Your task to perform on an android device: check out phone information Image 0: 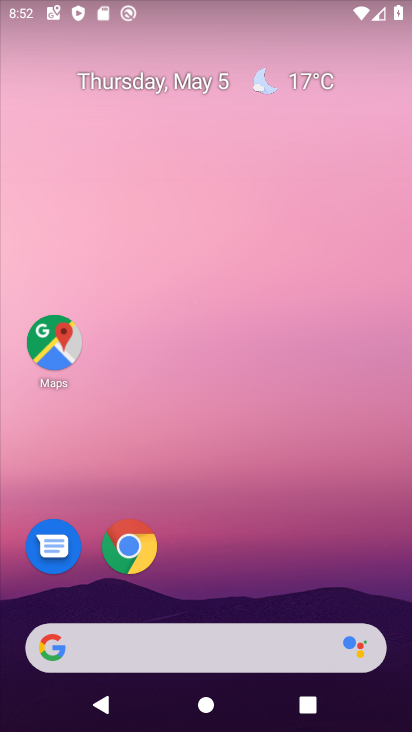
Step 0: drag from (165, 645) to (295, 63)
Your task to perform on an android device: check out phone information Image 1: 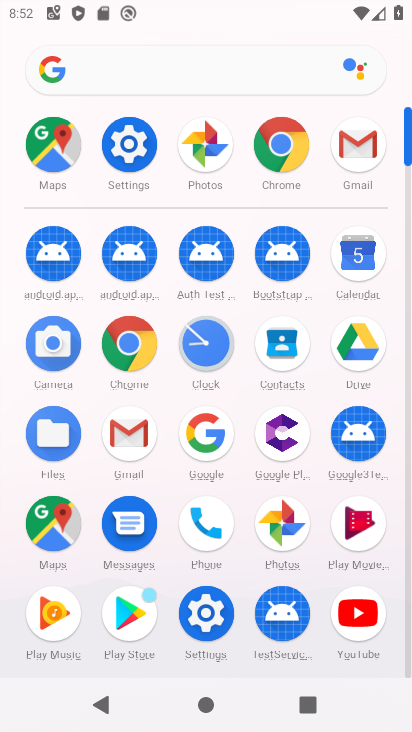
Step 1: click (211, 616)
Your task to perform on an android device: check out phone information Image 2: 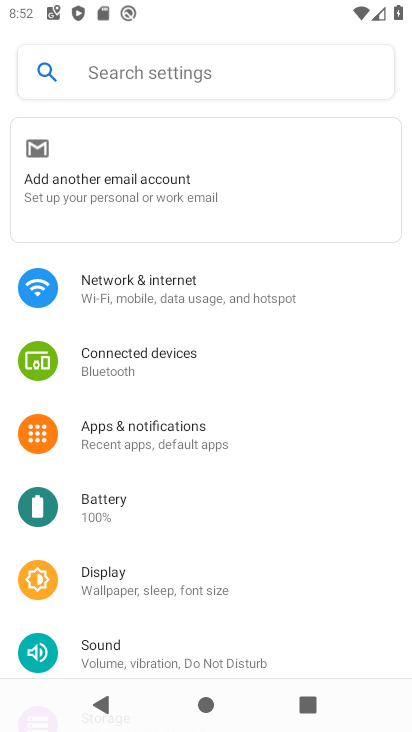
Step 2: drag from (217, 627) to (368, 116)
Your task to perform on an android device: check out phone information Image 3: 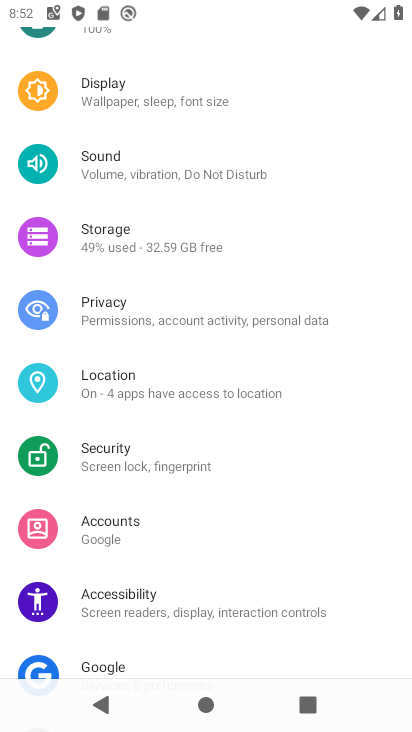
Step 3: drag from (212, 586) to (278, 222)
Your task to perform on an android device: check out phone information Image 4: 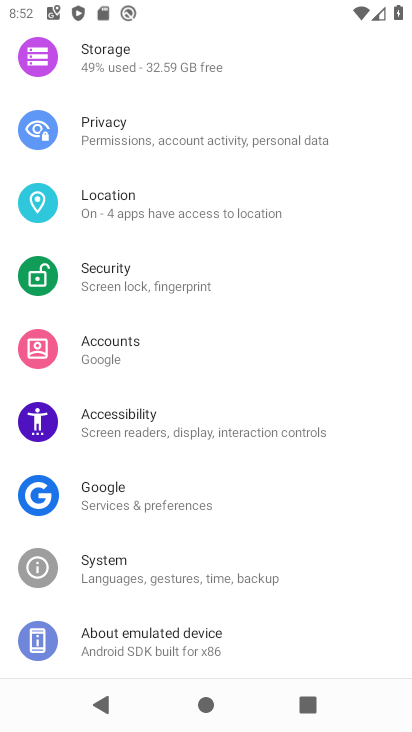
Step 4: click (175, 636)
Your task to perform on an android device: check out phone information Image 5: 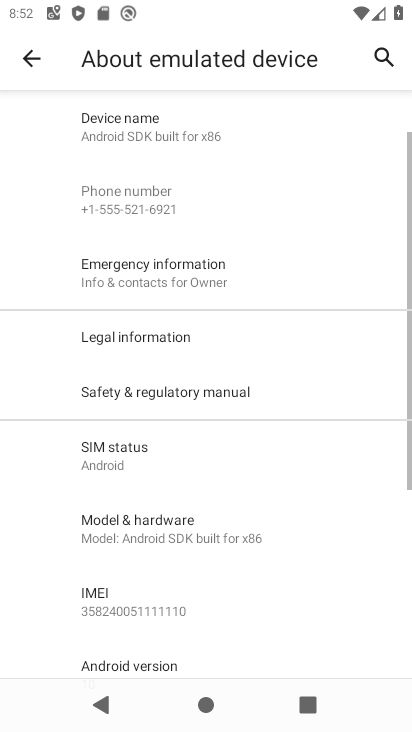
Step 5: task complete